Your task to perform on an android device: change the upload size in google photos Image 0: 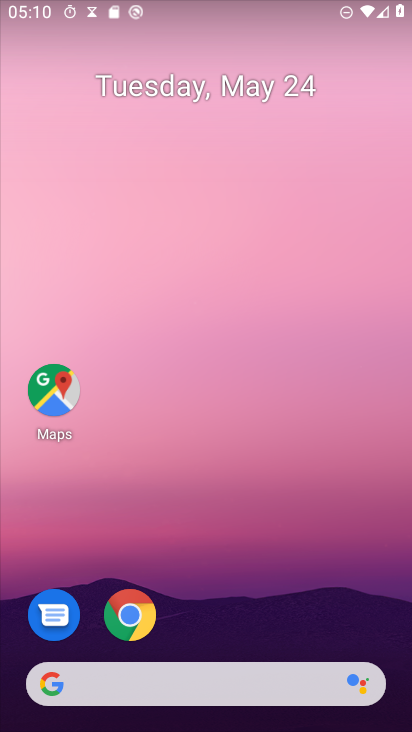
Step 0: drag from (248, 625) to (299, 69)
Your task to perform on an android device: change the upload size in google photos Image 1: 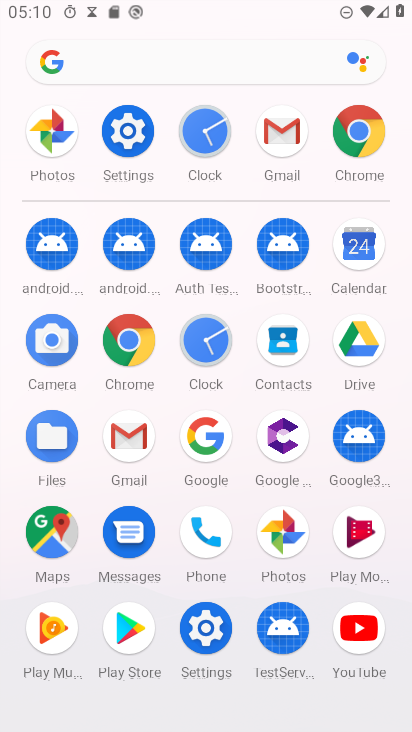
Step 1: click (281, 536)
Your task to perform on an android device: change the upload size in google photos Image 2: 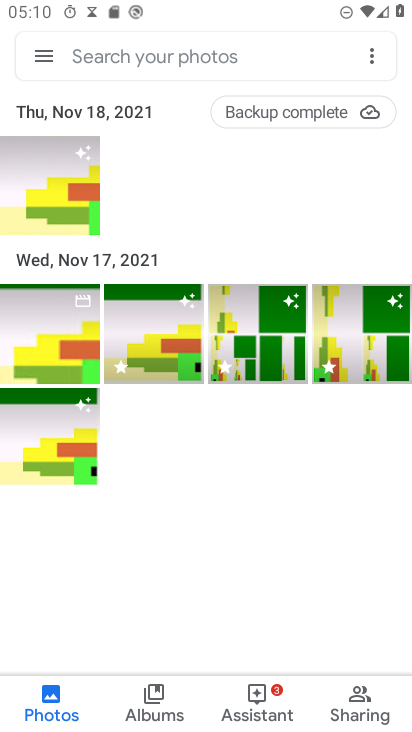
Step 2: click (42, 58)
Your task to perform on an android device: change the upload size in google photos Image 3: 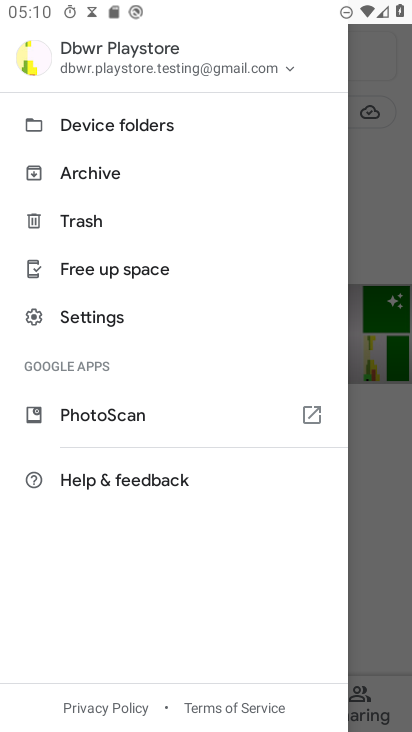
Step 3: click (96, 312)
Your task to perform on an android device: change the upload size in google photos Image 4: 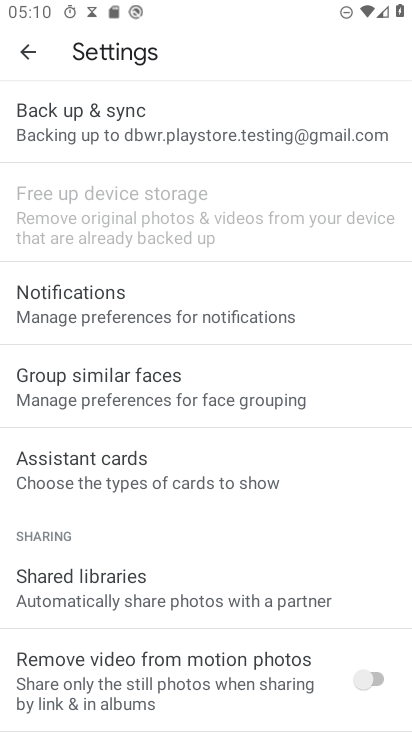
Step 4: click (92, 106)
Your task to perform on an android device: change the upload size in google photos Image 5: 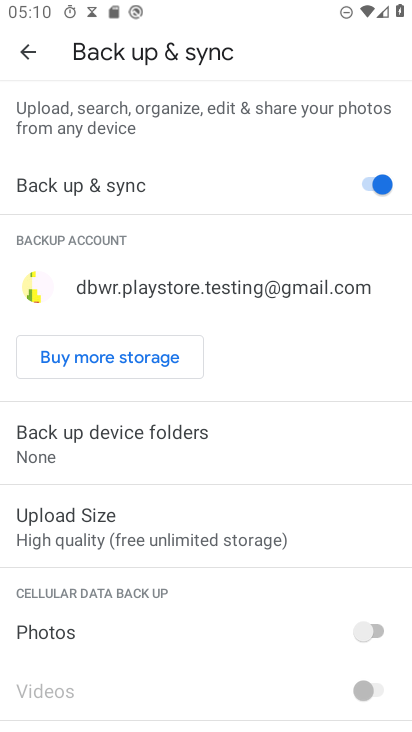
Step 5: click (102, 530)
Your task to perform on an android device: change the upload size in google photos Image 6: 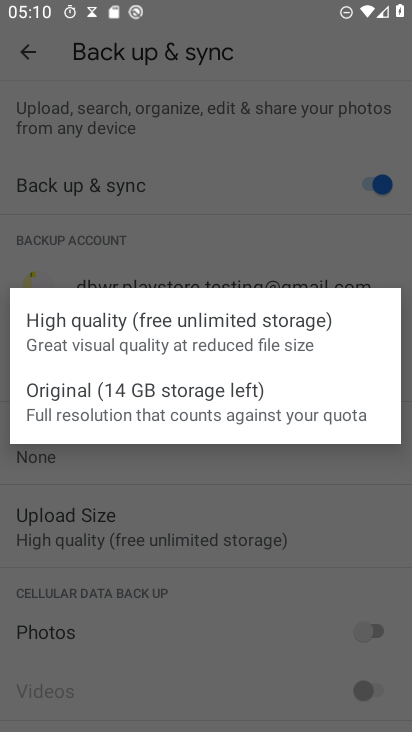
Step 6: click (81, 402)
Your task to perform on an android device: change the upload size in google photos Image 7: 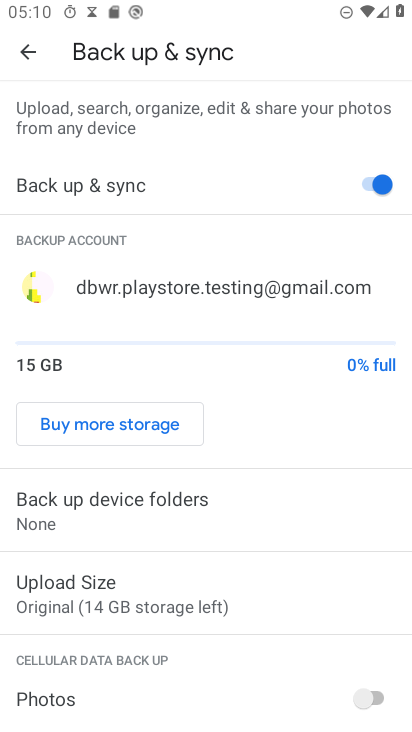
Step 7: task complete